Your task to perform on an android device: turn on translation in the chrome app Image 0: 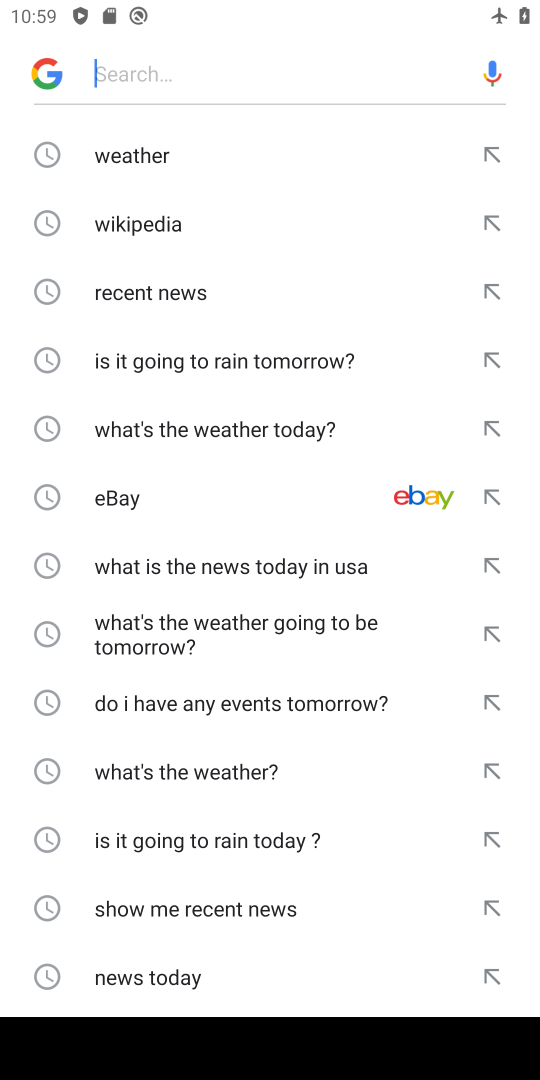
Step 0: press back button
Your task to perform on an android device: turn on translation in the chrome app Image 1: 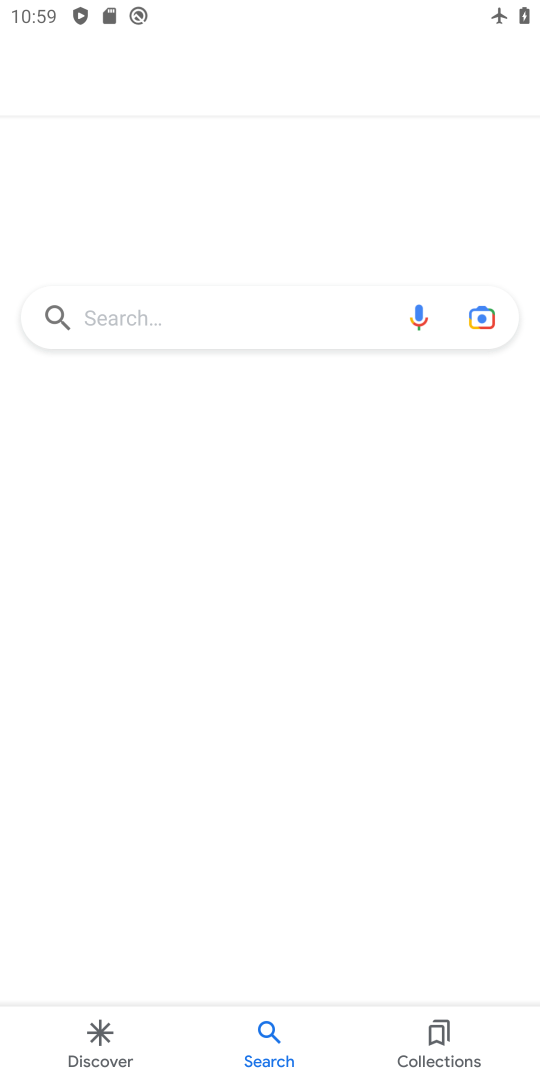
Step 1: press back button
Your task to perform on an android device: turn on translation in the chrome app Image 2: 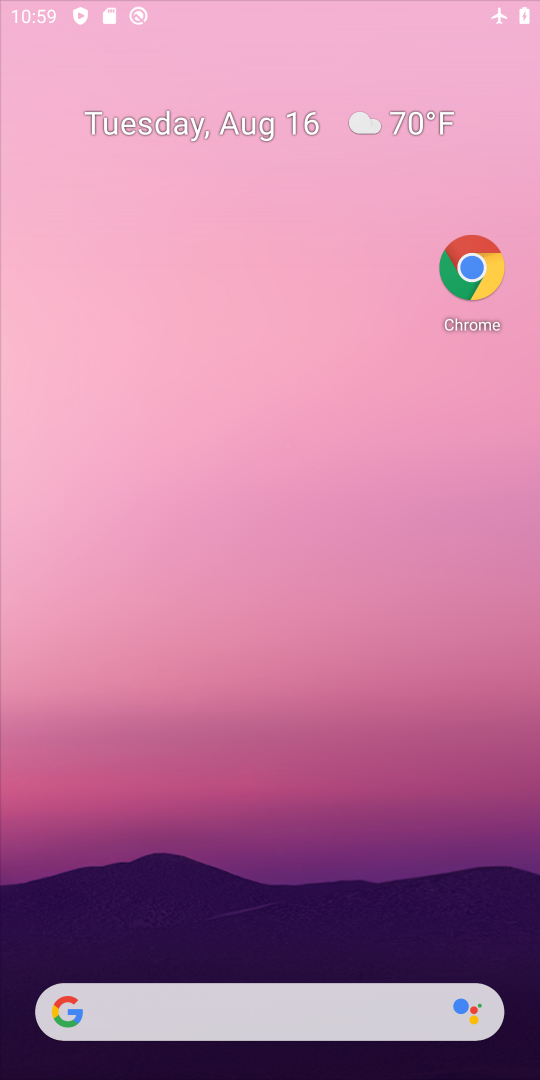
Step 2: press back button
Your task to perform on an android device: turn on translation in the chrome app Image 3: 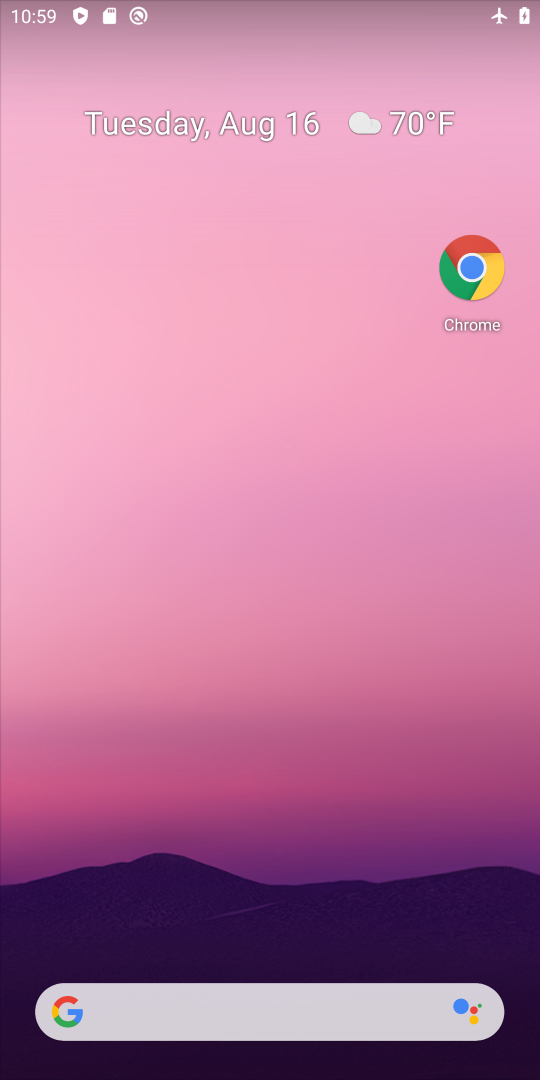
Step 3: drag from (272, 951) to (187, 560)
Your task to perform on an android device: turn on translation in the chrome app Image 4: 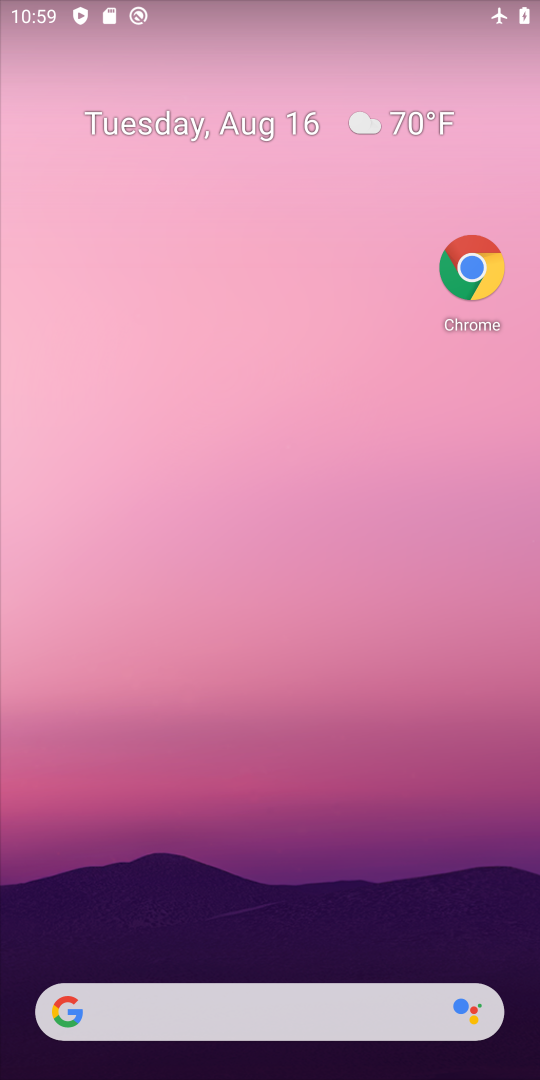
Step 4: drag from (284, 893) to (297, 27)
Your task to perform on an android device: turn on translation in the chrome app Image 5: 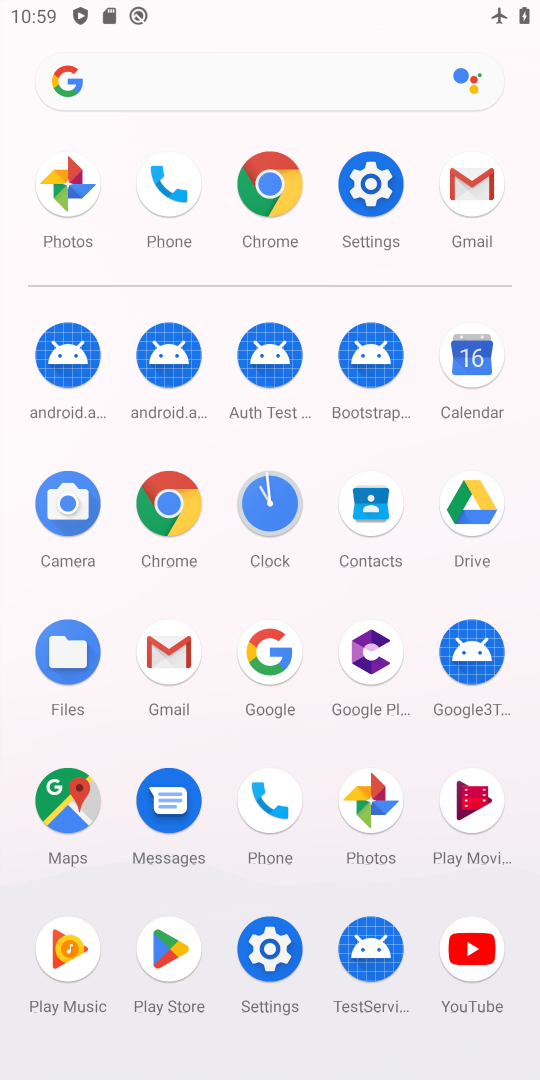
Step 5: click (166, 533)
Your task to perform on an android device: turn on translation in the chrome app Image 6: 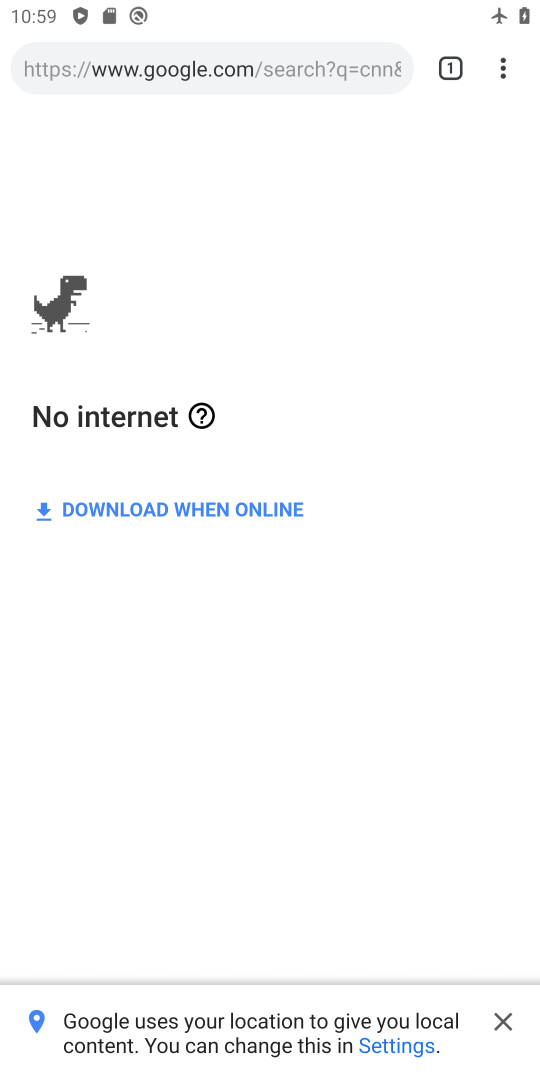
Step 6: click (503, 68)
Your task to perform on an android device: turn on translation in the chrome app Image 7: 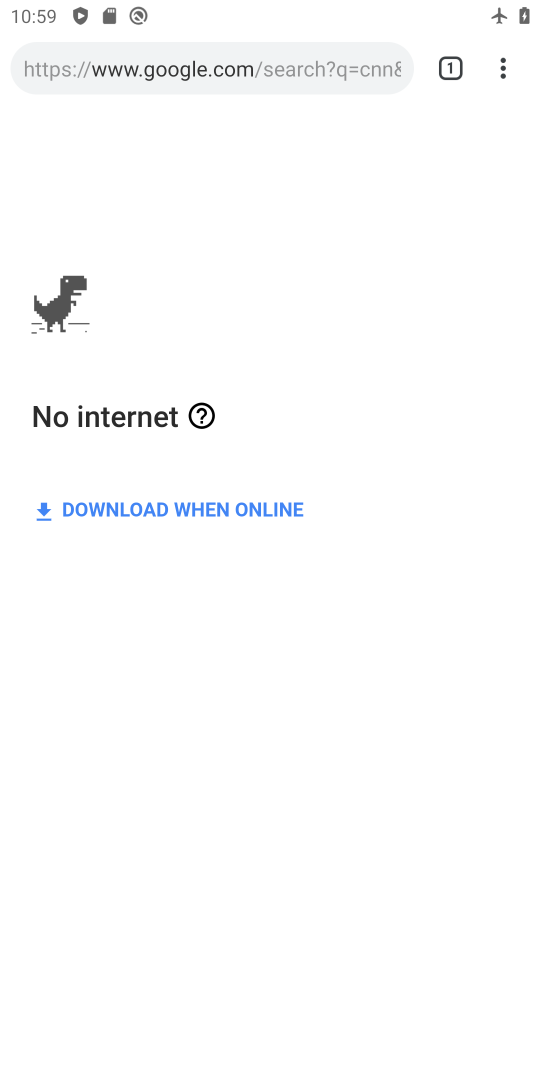
Step 7: click (499, 80)
Your task to perform on an android device: turn on translation in the chrome app Image 8: 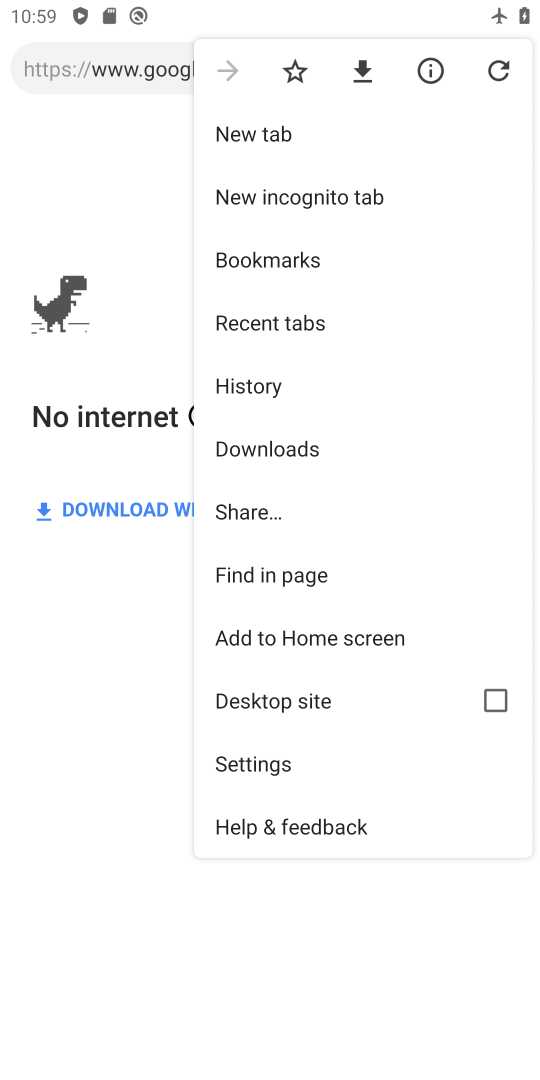
Step 8: click (247, 766)
Your task to perform on an android device: turn on translation in the chrome app Image 9: 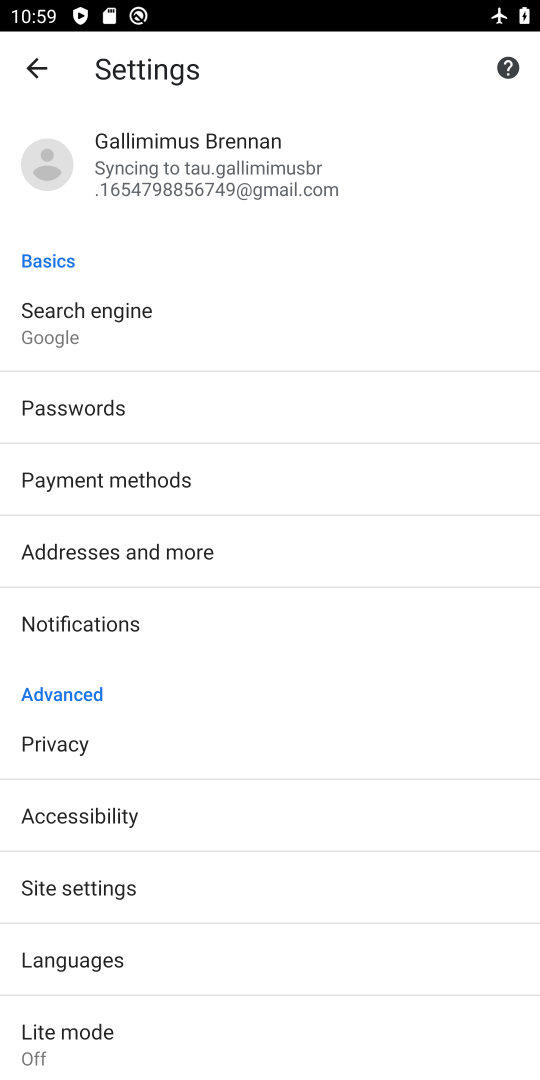
Step 9: drag from (79, 998) to (202, 173)
Your task to perform on an android device: turn on translation in the chrome app Image 10: 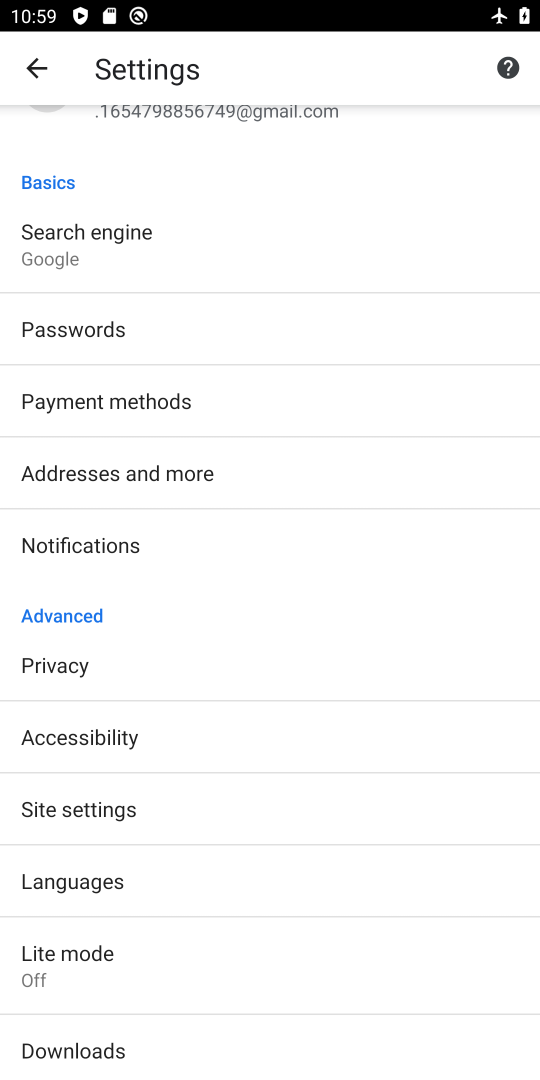
Step 10: click (66, 876)
Your task to perform on an android device: turn on translation in the chrome app Image 11: 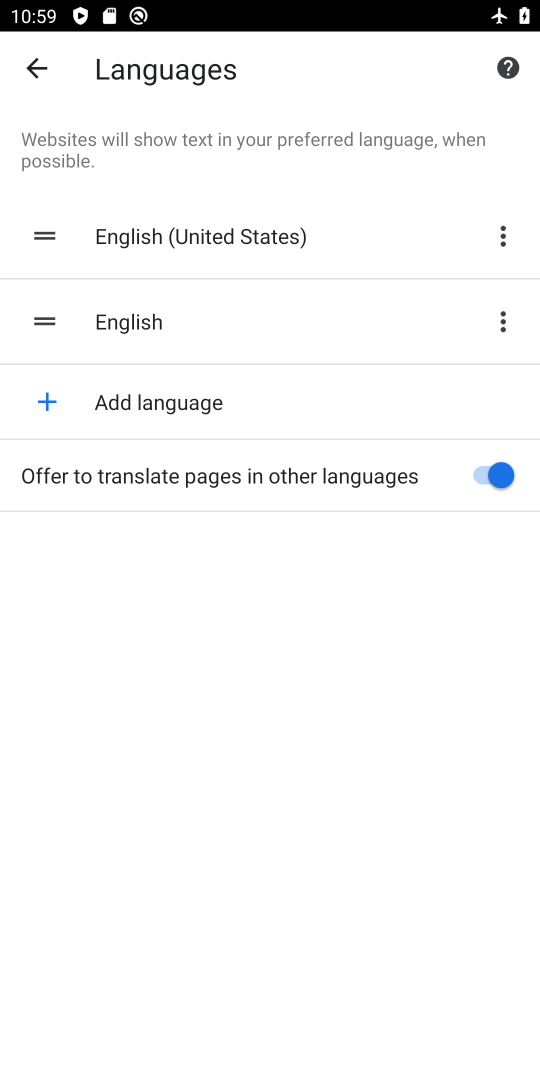
Step 11: task complete